Your task to perform on an android device: uninstall "Expedia: Hotels, Flights & Car" Image 0: 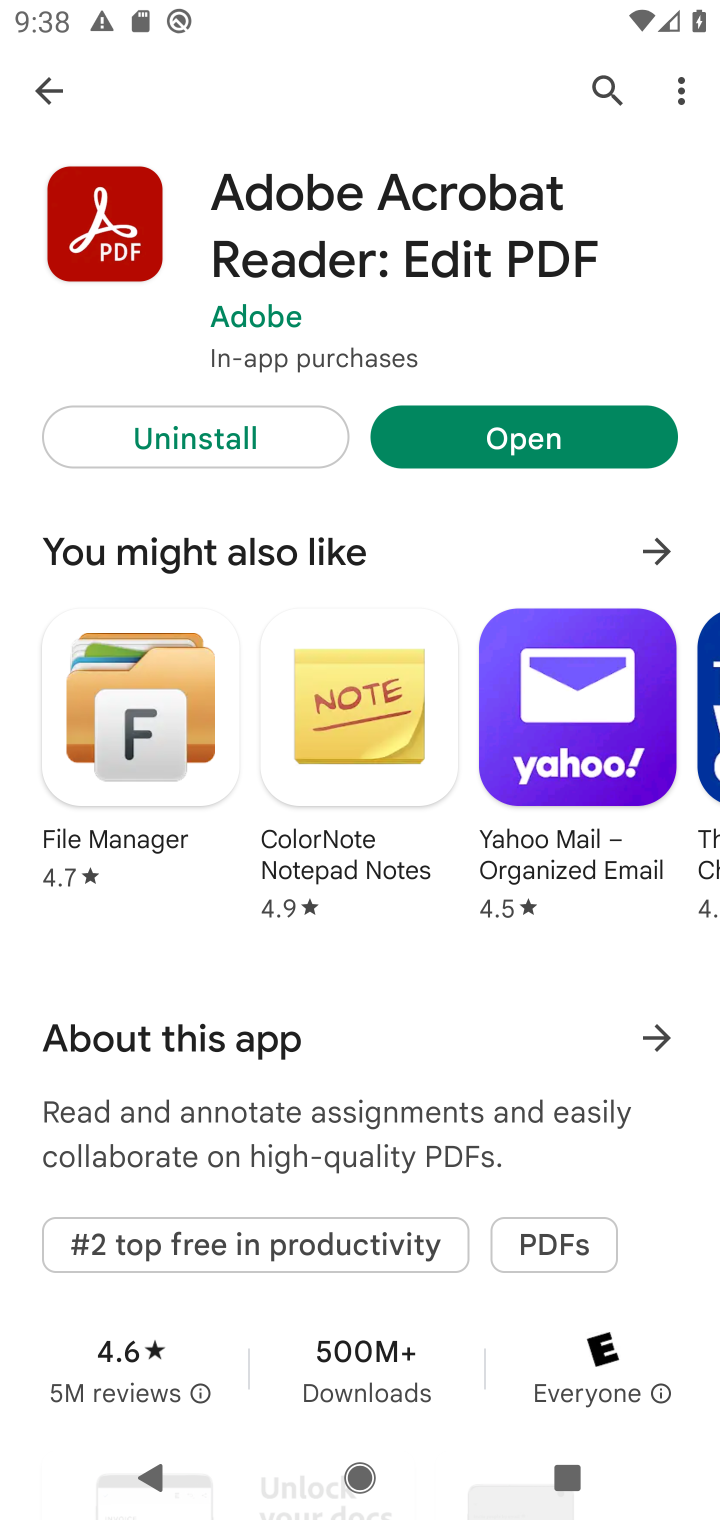
Step 0: press home button
Your task to perform on an android device: uninstall "Expedia: Hotels, Flights & Car" Image 1: 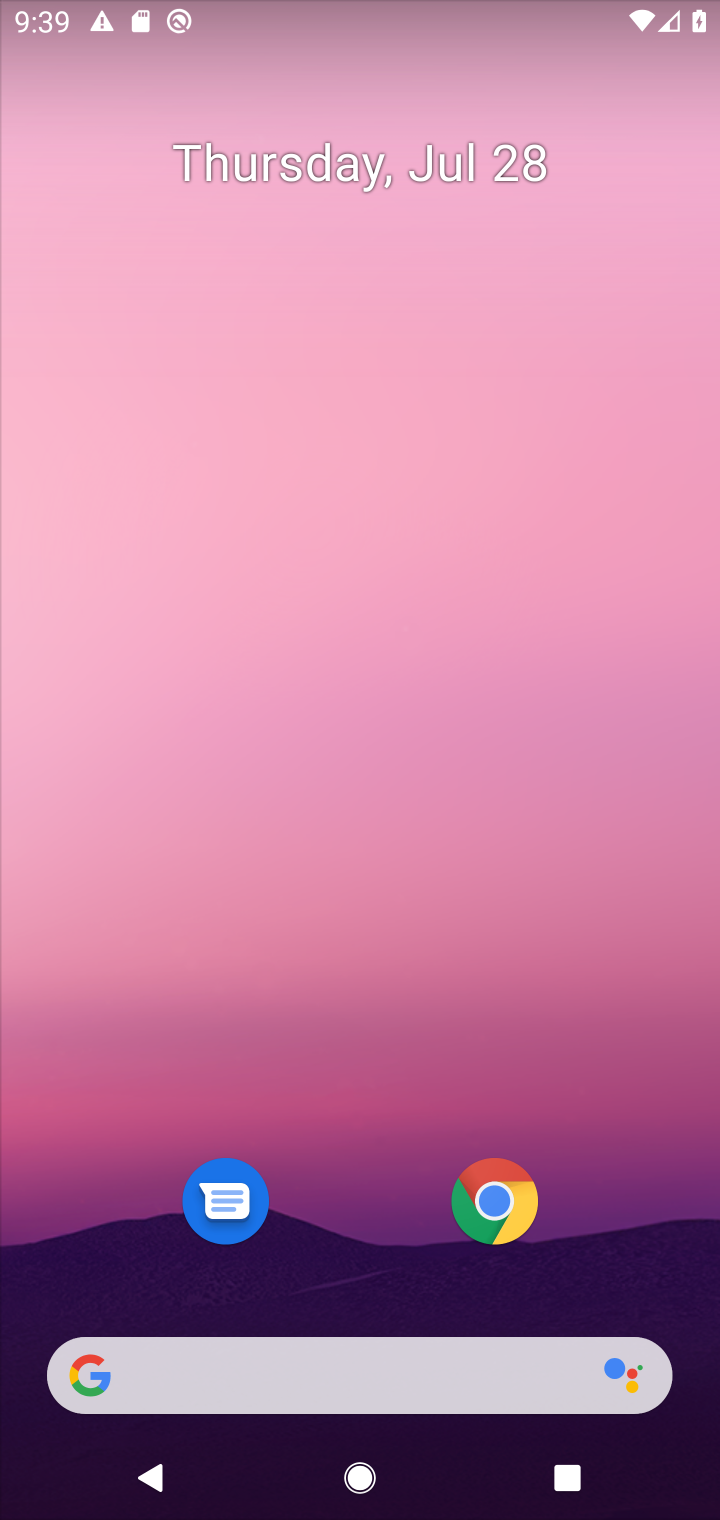
Step 1: drag from (291, 1192) to (257, 0)
Your task to perform on an android device: uninstall "Expedia: Hotels, Flights & Car" Image 2: 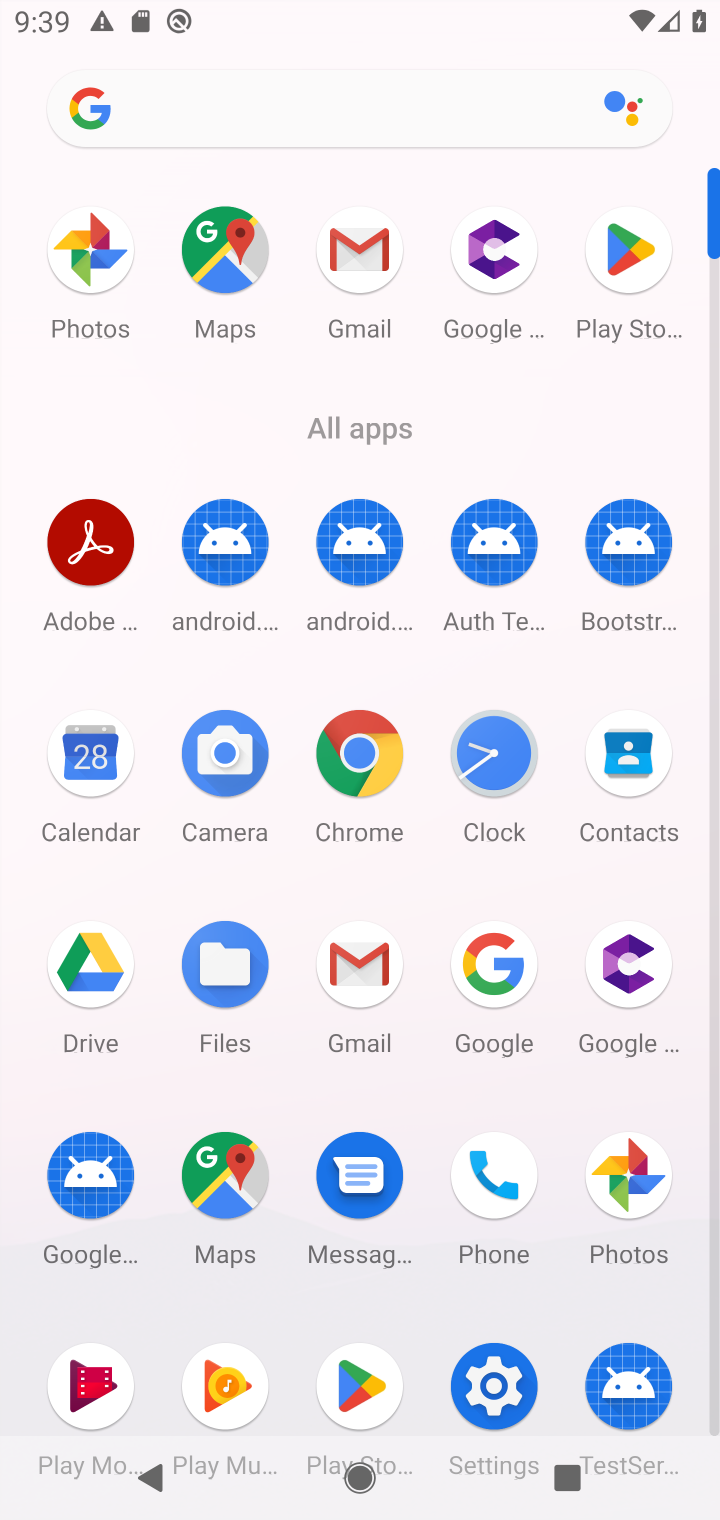
Step 2: click (628, 314)
Your task to perform on an android device: uninstall "Expedia: Hotels, Flights & Car" Image 3: 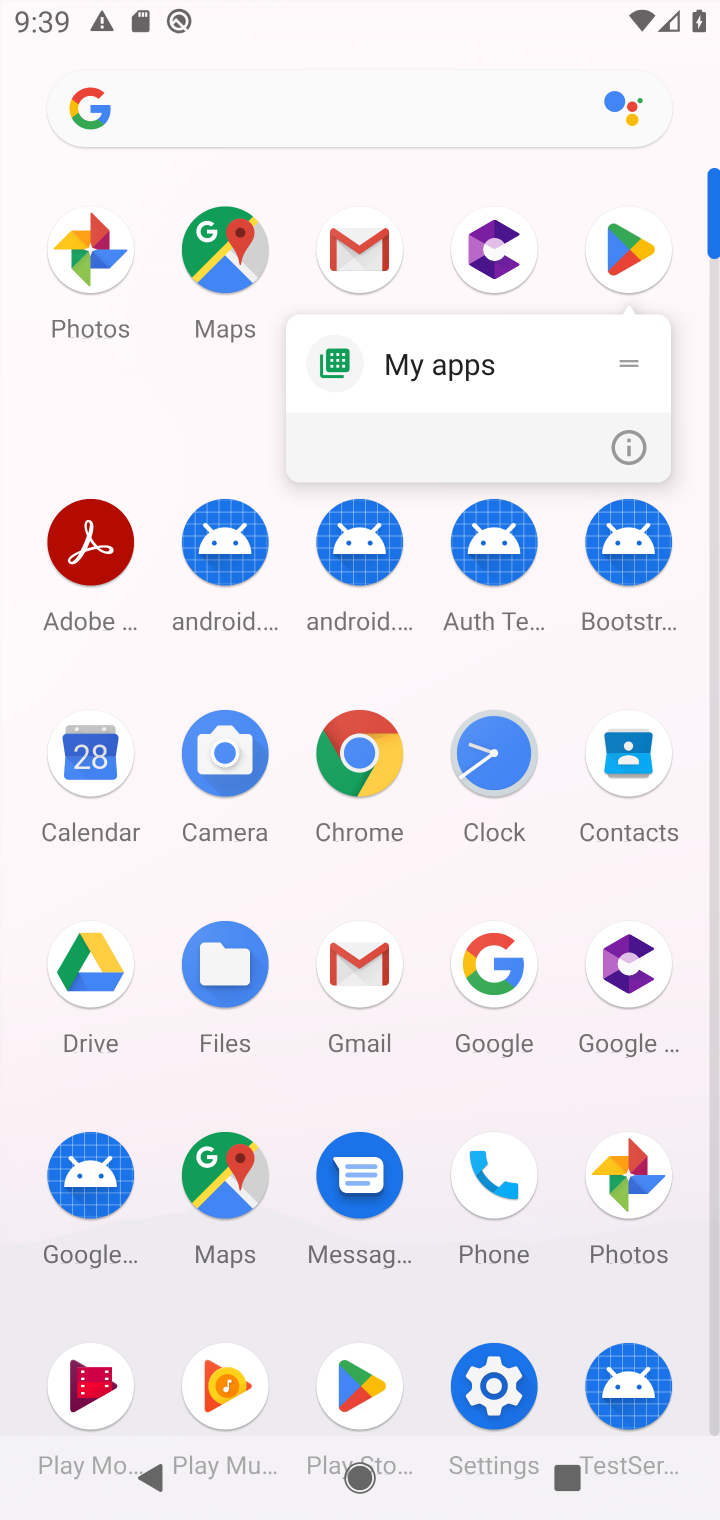
Step 3: click (618, 247)
Your task to perform on an android device: uninstall "Expedia: Hotels, Flights & Car" Image 4: 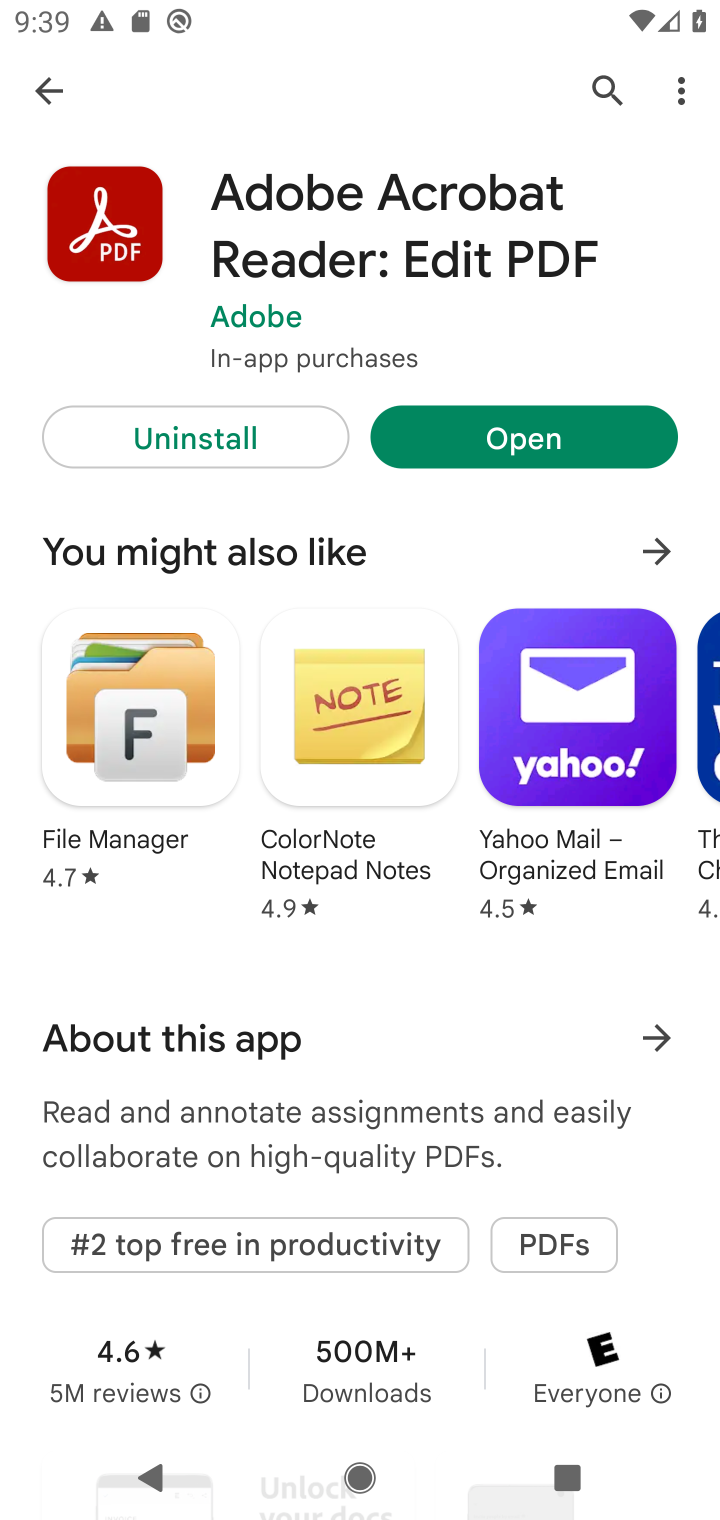
Step 4: click (48, 99)
Your task to perform on an android device: uninstall "Expedia: Hotels, Flights & Car" Image 5: 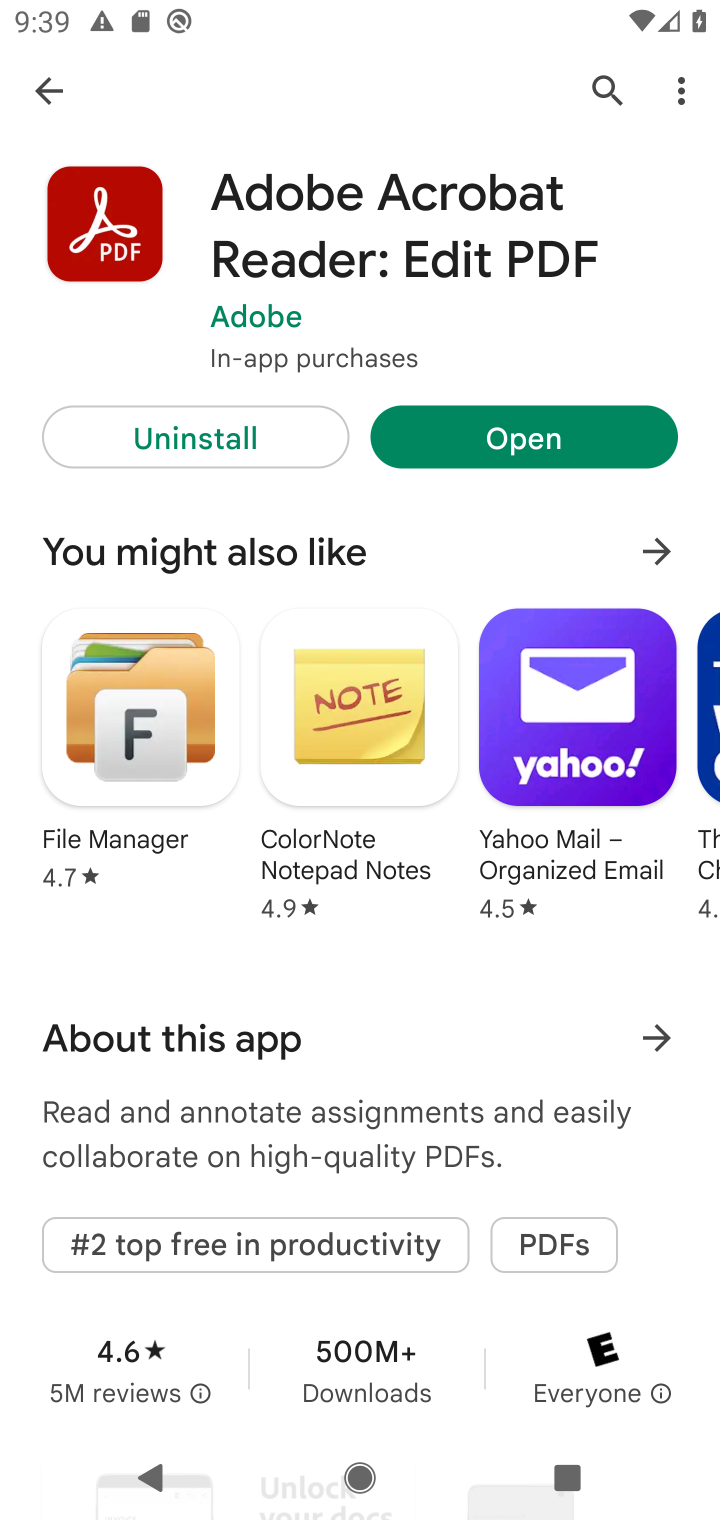
Step 5: click (42, 106)
Your task to perform on an android device: uninstall "Expedia: Hotels, Flights & Car" Image 6: 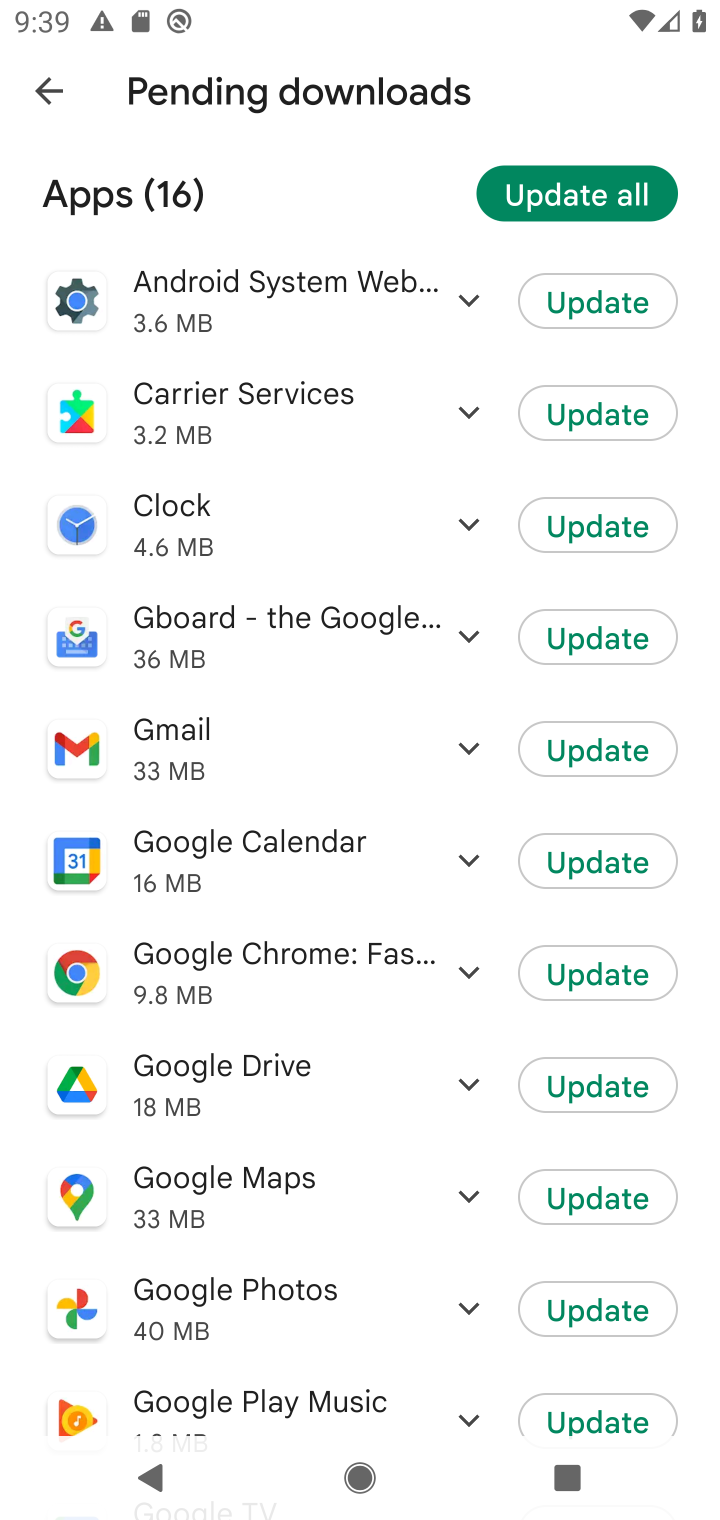
Step 6: click (33, 83)
Your task to perform on an android device: uninstall "Expedia: Hotels, Flights & Car" Image 7: 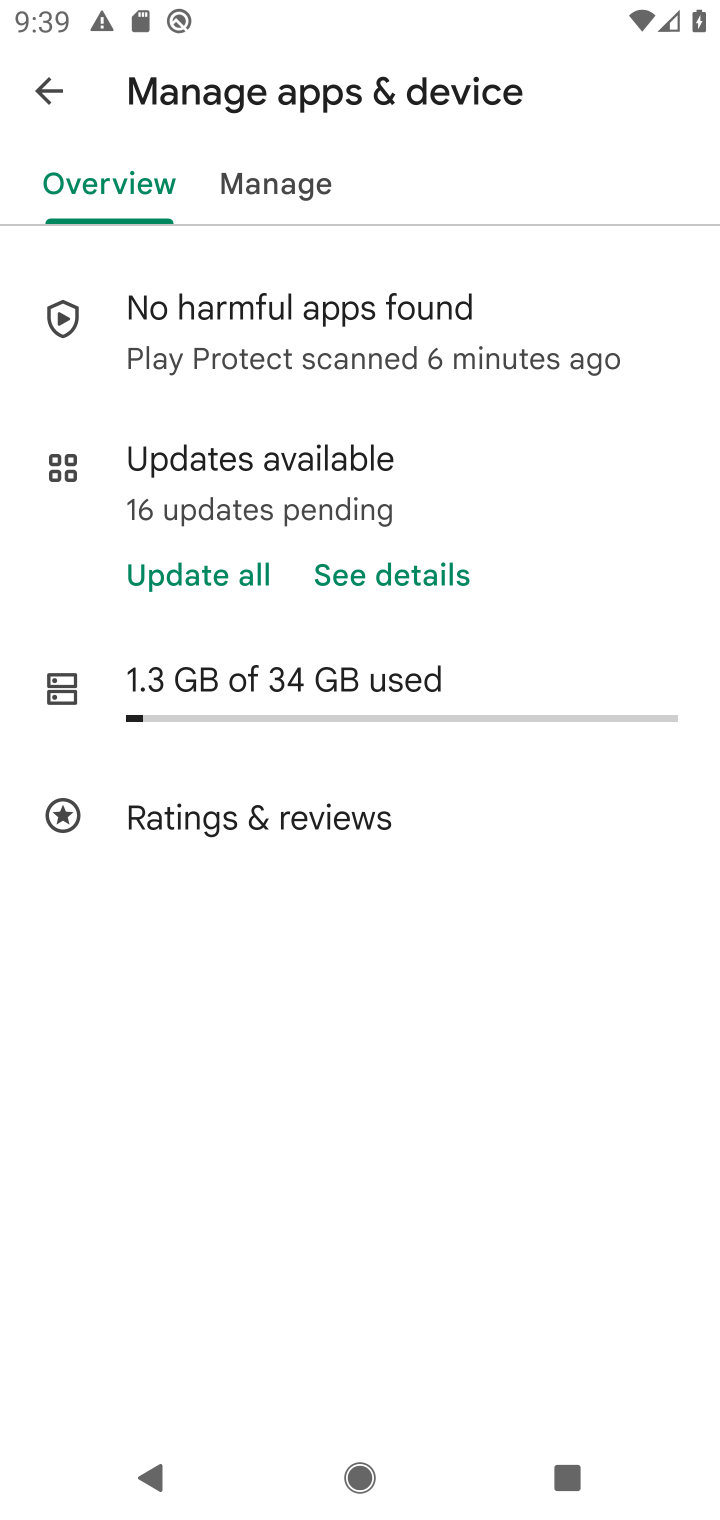
Step 7: click (29, 84)
Your task to perform on an android device: uninstall "Expedia: Hotels, Flights & Car" Image 8: 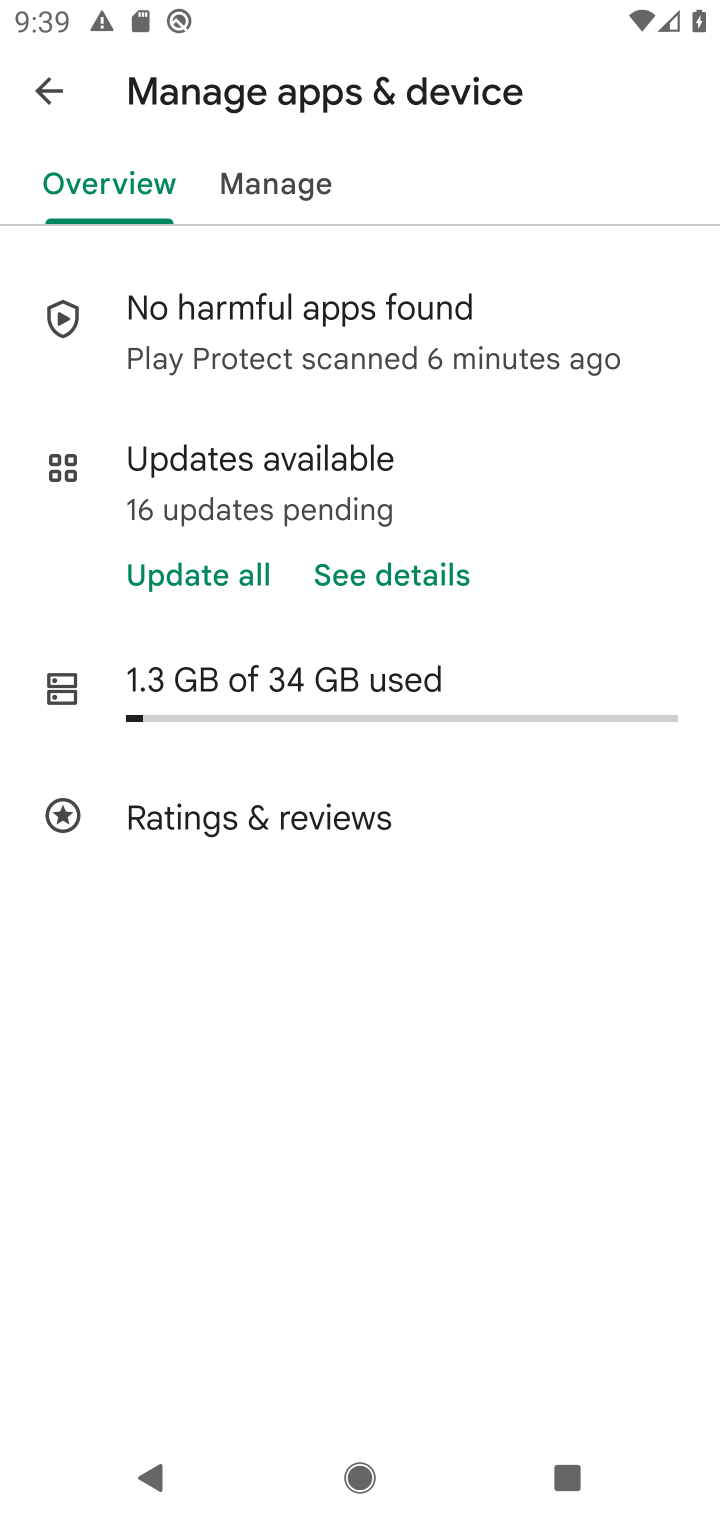
Step 8: click (58, 100)
Your task to perform on an android device: uninstall "Expedia: Hotels, Flights & Car" Image 9: 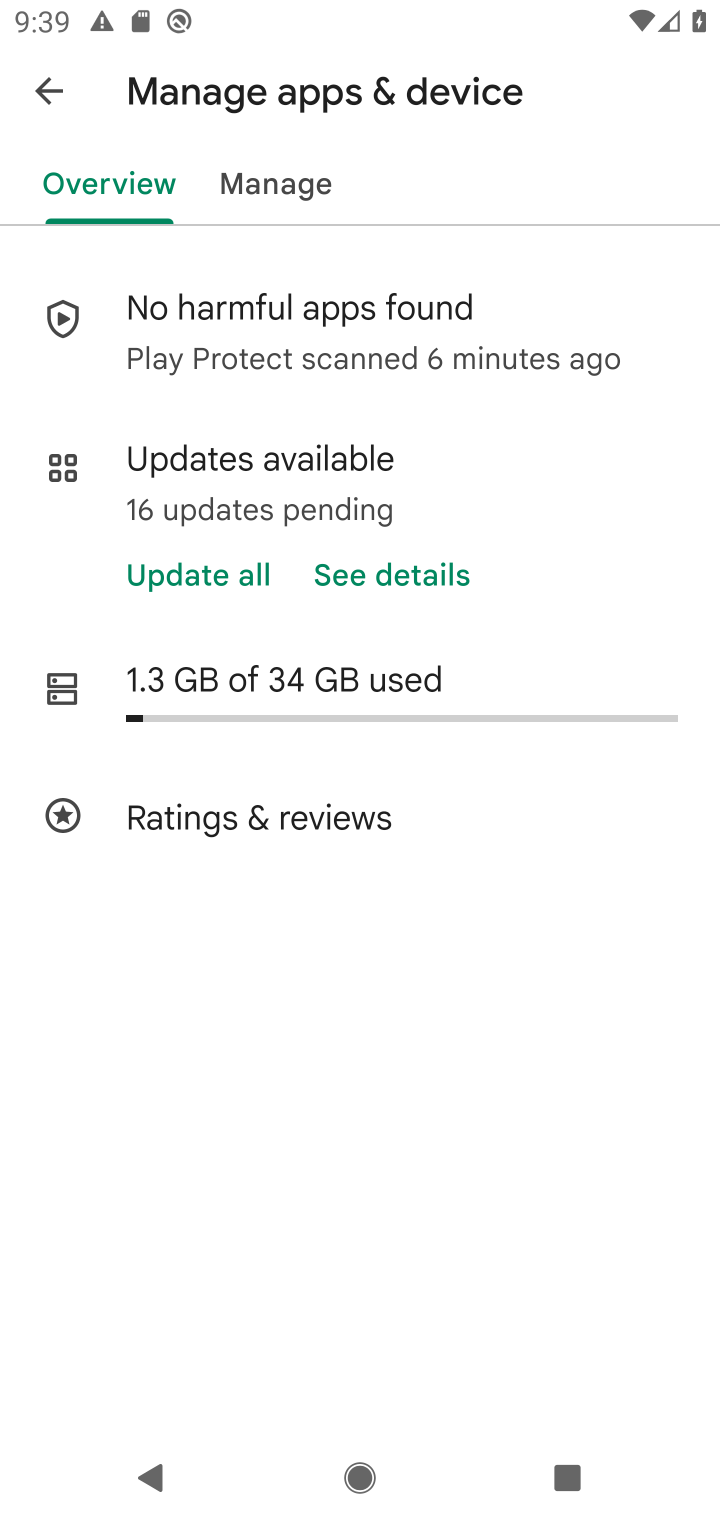
Step 9: press back button
Your task to perform on an android device: uninstall "Expedia: Hotels, Flights & Car" Image 10: 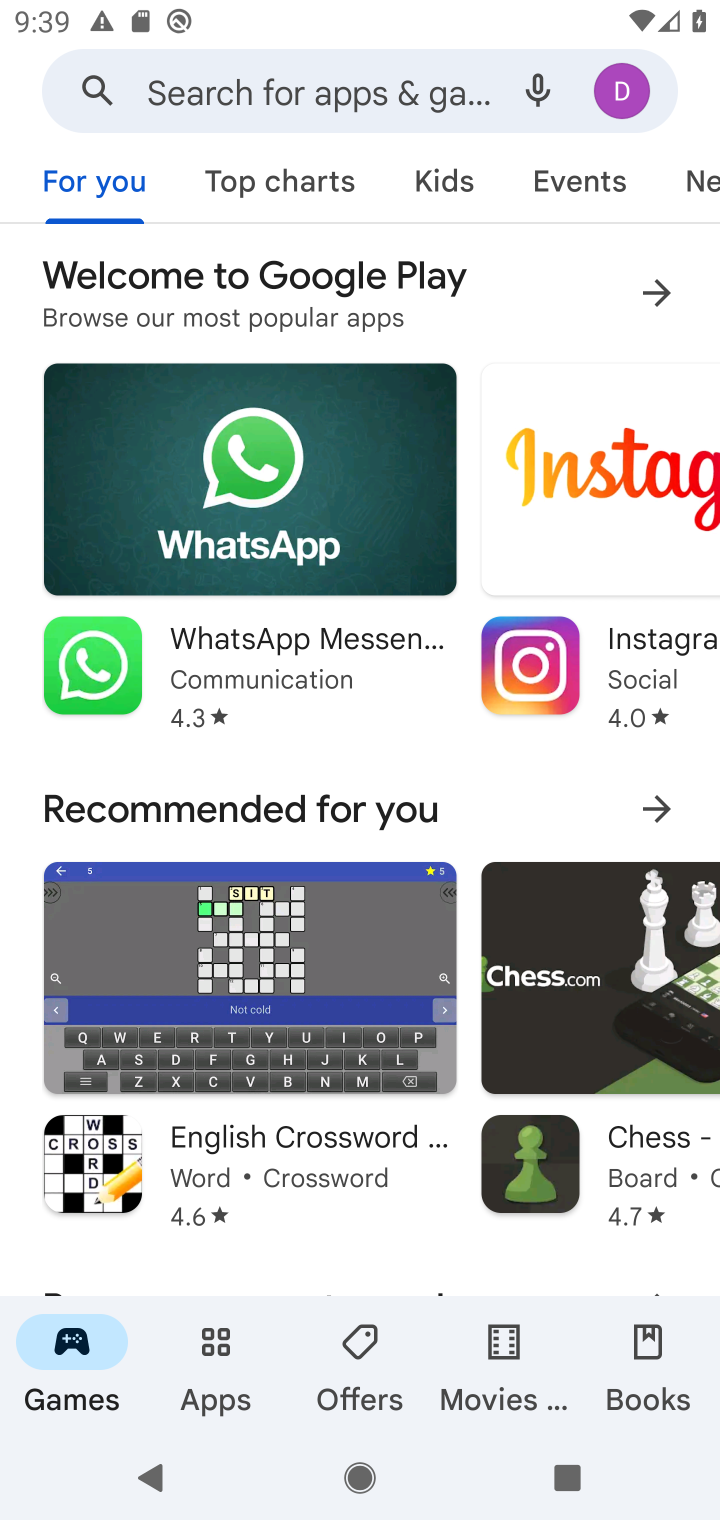
Step 10: click (345, 94)
Your task to perform on an android device: uninstall "Expedia: Hotels, Flights & Car" Image 11: 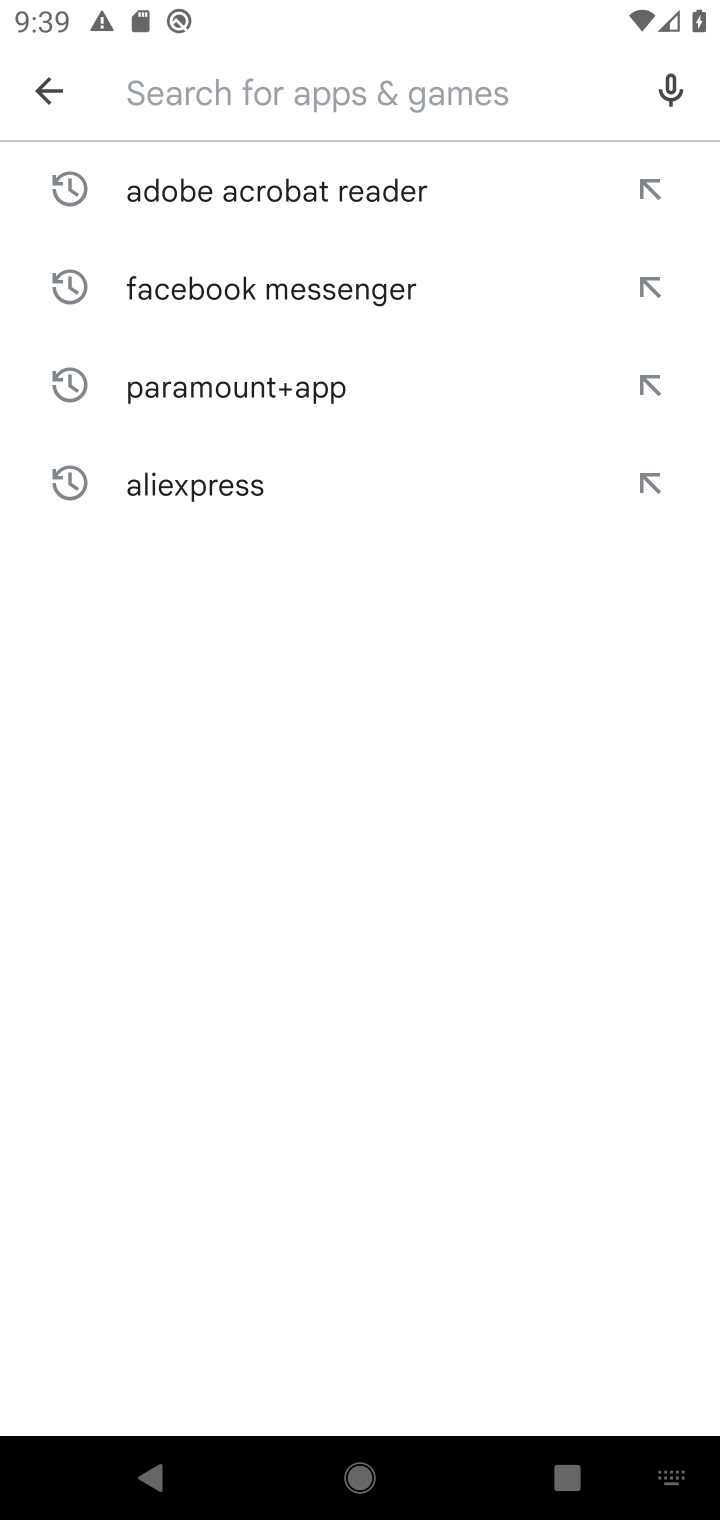
Step 11: type "expedia"
Your task to perform on an android device: uninstall "Expedia: Hotels, Flights & Car" Image 12: 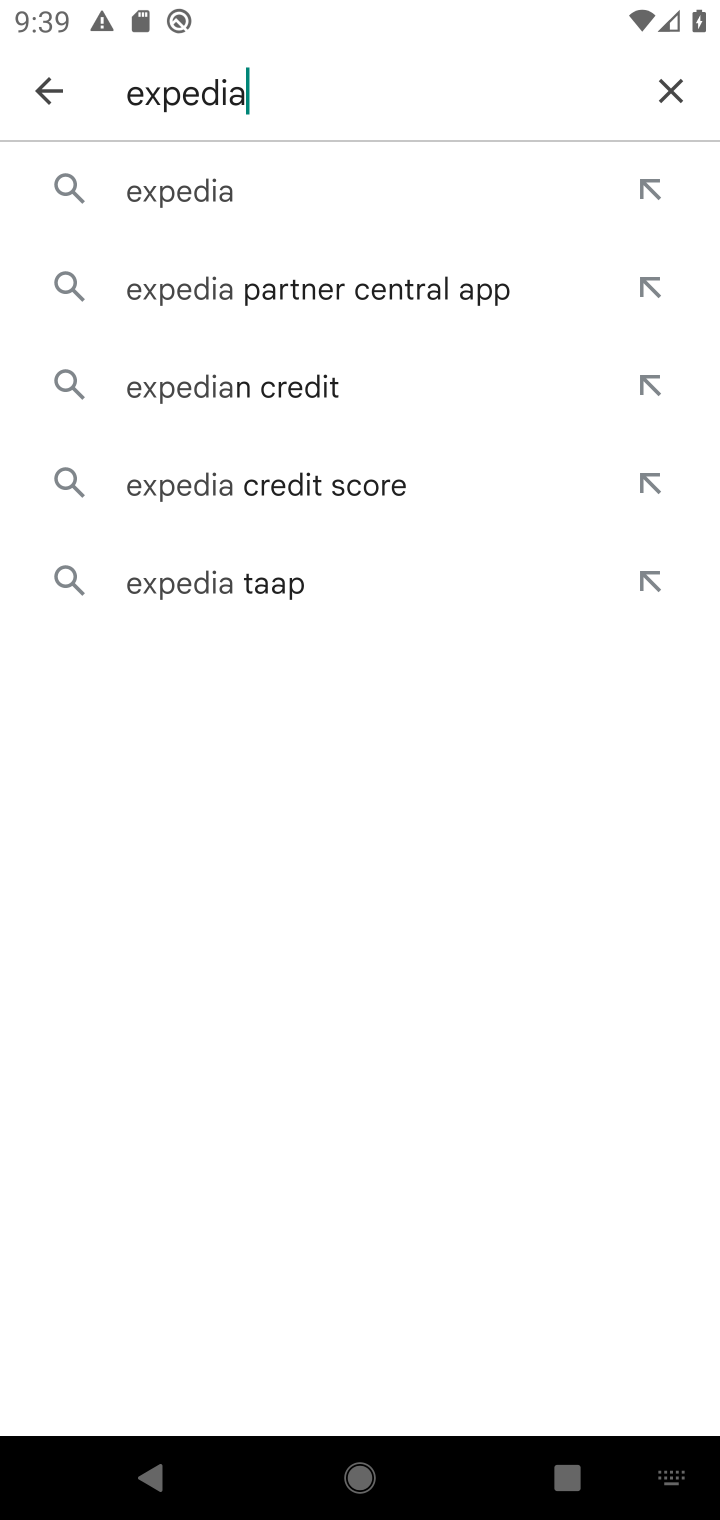
Step 12: click (250, 200)
Your task to perform on an android device: uninstall "Expedia: Hotels, Flights & Car" Image 13: 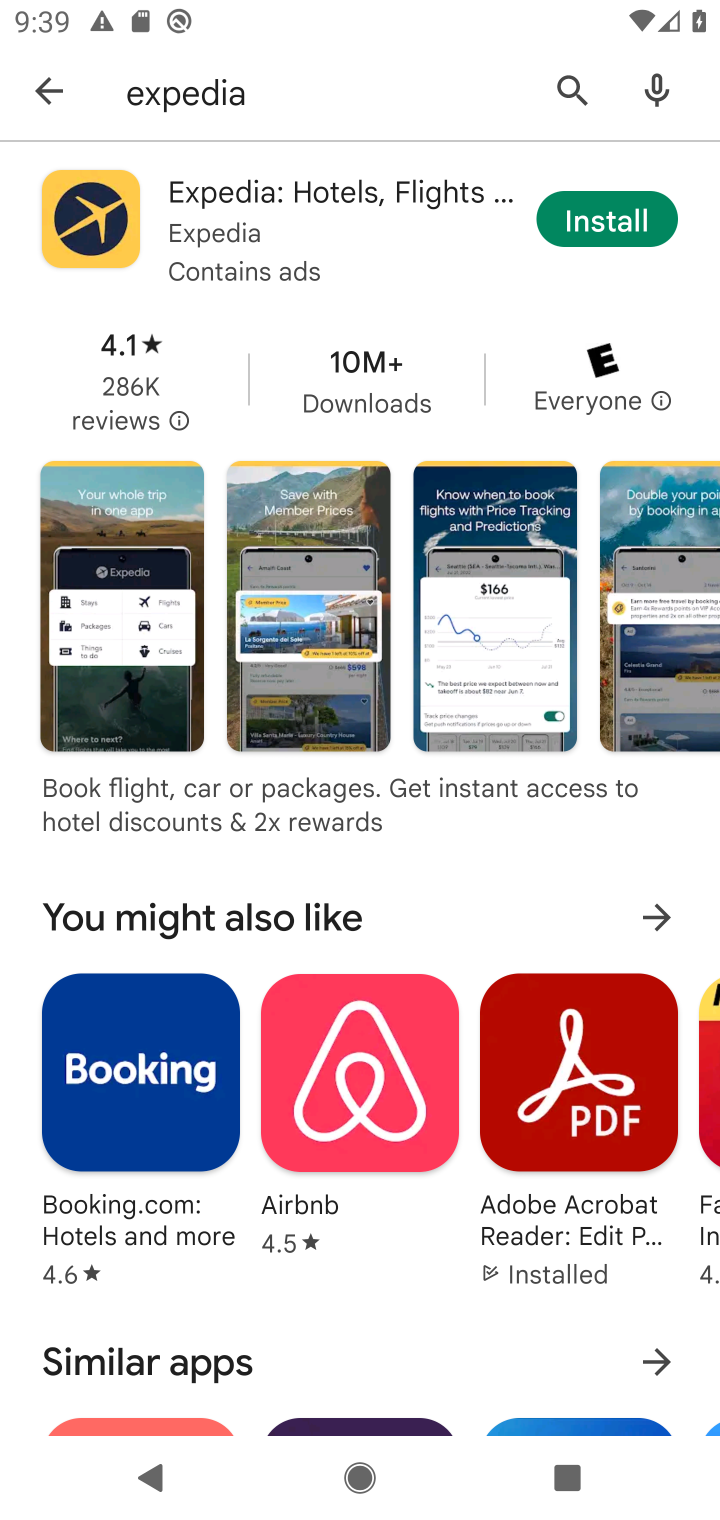
Step 13: task complete